Your task to perform on an android device: move a message to another label in the gmail app Image 0: 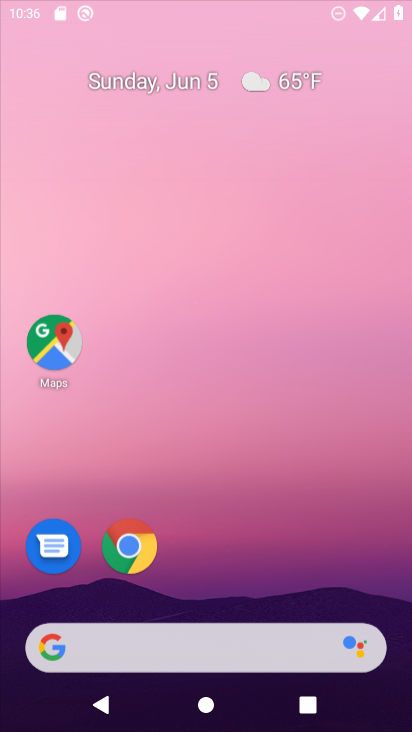
Step 0: click (248, 111)
Your task to perform on an android device: move a message to another label in the gmail app Image 1: 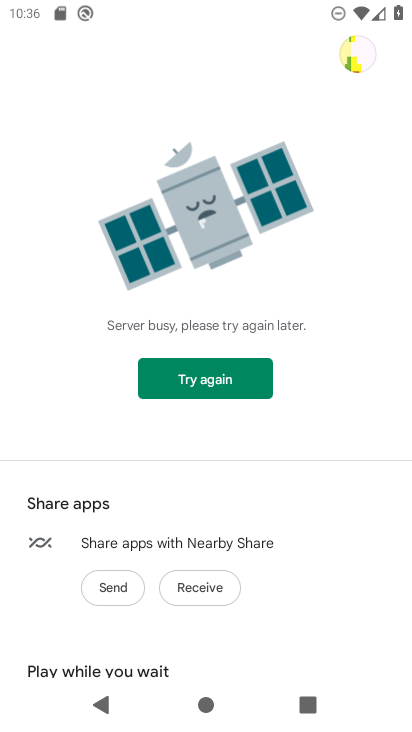
Step 1: press home button
Your task to perform on an android device: move a message to another label in the gmail app Image 2: 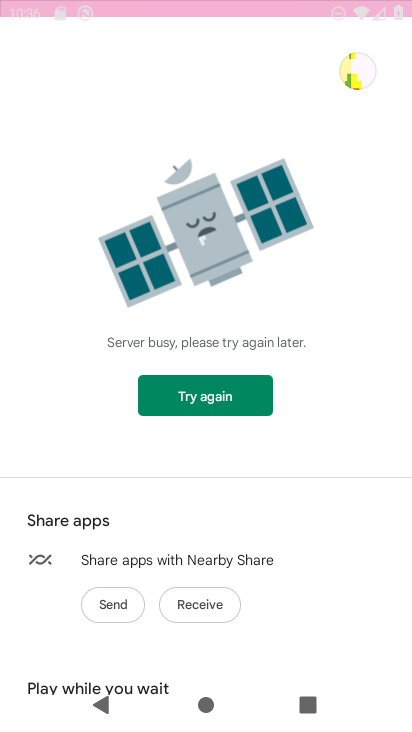
Step 2: drag from (165, 530) to (222, 20)
Your task to perform on an android device: move a message to another label in the gmail app Image 3: 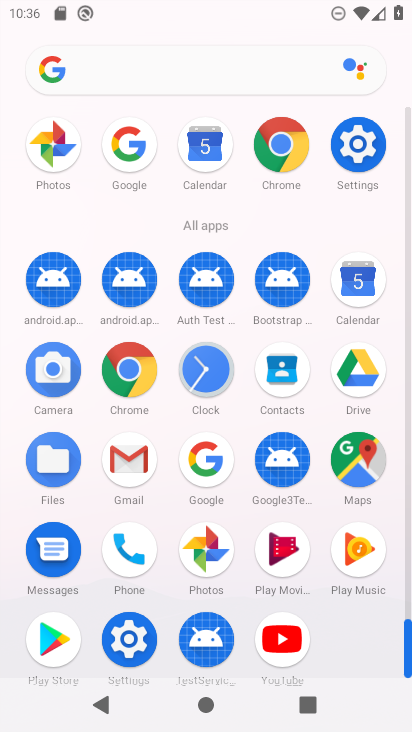
Step 3: click (135, 444)
Your task to perform on an android device: move a message to another label in the gmail app Image 4: 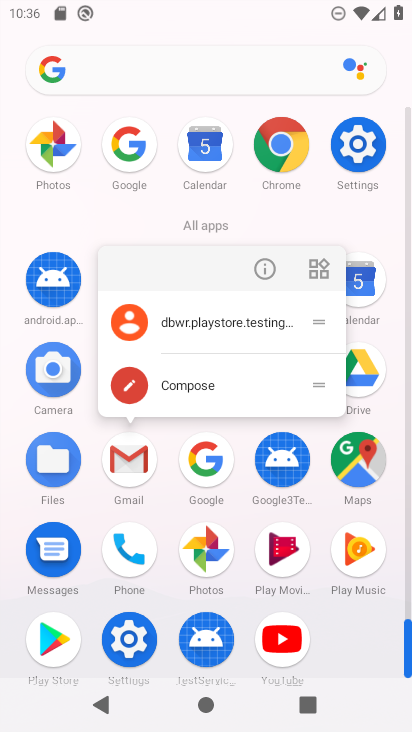
Step 4: click (254, 263)
Your task to perform on an android device: move a message to another label in the gmail app Image 5: 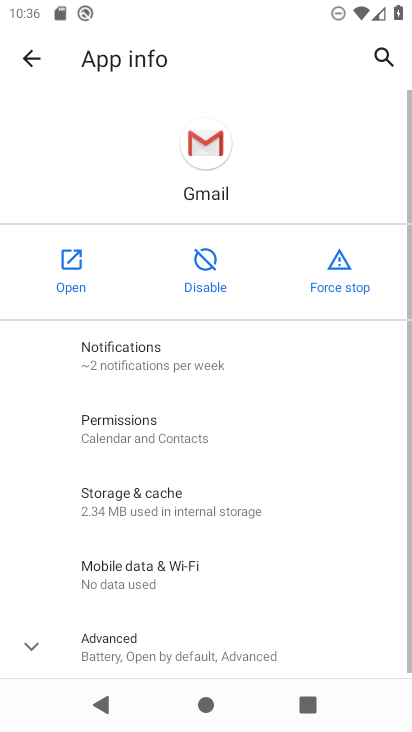
Step 5: click (69, 275)
Your task to perform on an android device: move a message to another label in the gmail app Image 6: 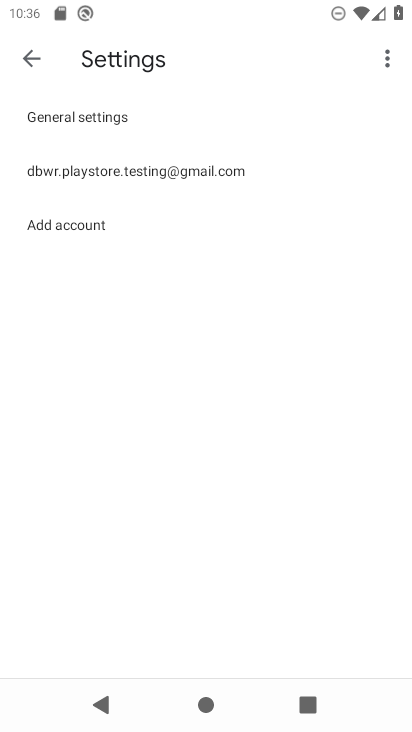
Step 6: click (208, 172)
Your task to perform on an android device: move a message to another label in the gmail app Image 7: 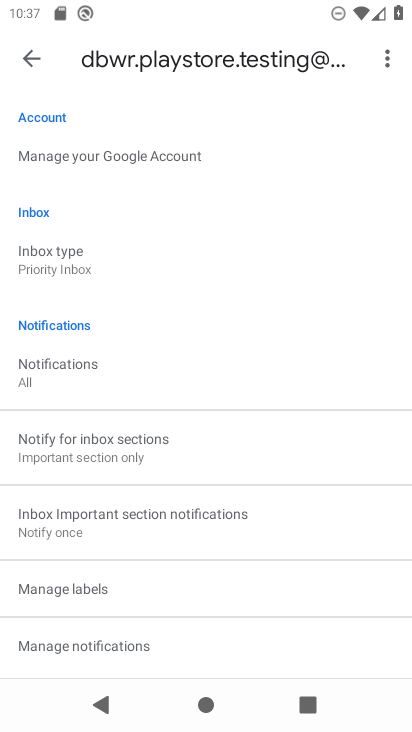
Step 7: drag from (190, 531) to (215, 201)
Your task to perform on an android device: move a message to another label in the gmail app Image 8: 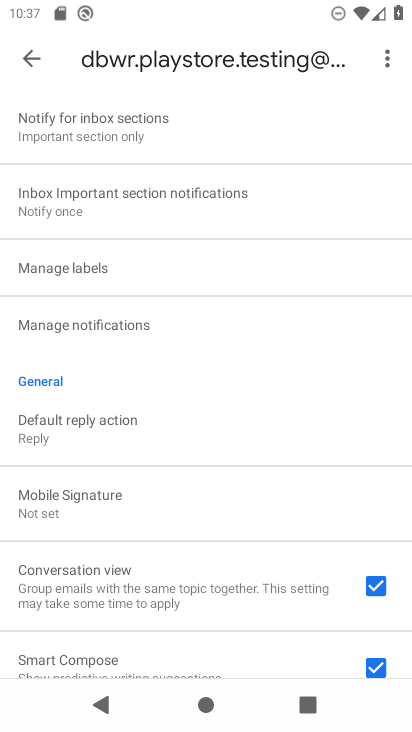
Step 8: click (34, 62)
Your task to perform on an android device: move a message to another label in the gmail app Image 9: 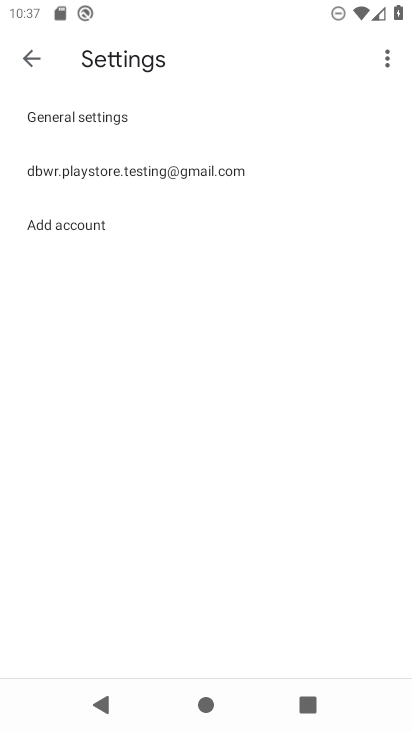
Step 9: click (27, 55)
Your task to perform on an android device: move a message to another label in the gmail app Image 10: 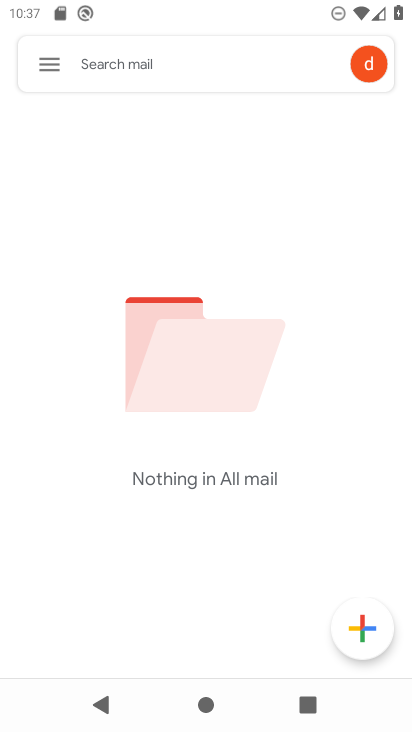
Step 10: click (52, 61)
Your task to perform on an android device: move a message to another label in the gmail app Image 11: 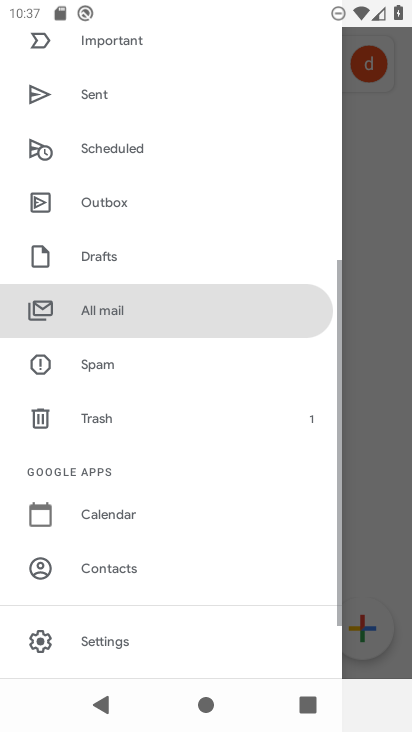
Step 11: drag from (132, 171) to (215, 721)
Your task to perform on an android device: move a message to another label in the gmail app Image 12: 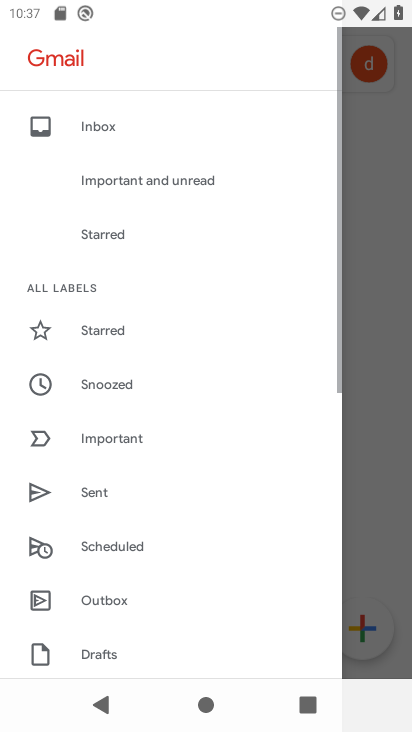
Step 12: click (93, 113)
Your task to perform on an android device: move a message to another label in the gmail app Image 13: 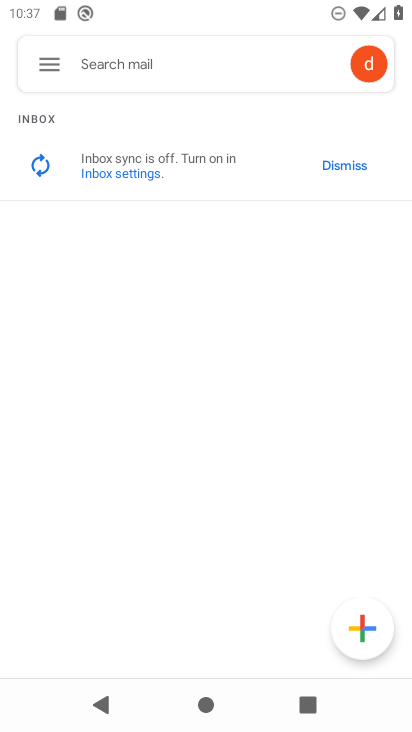
Step 13: drag from (154, 177) to (253, 534)
Your task to perform on an android device: move a message to another label in the gmail app Image 14: 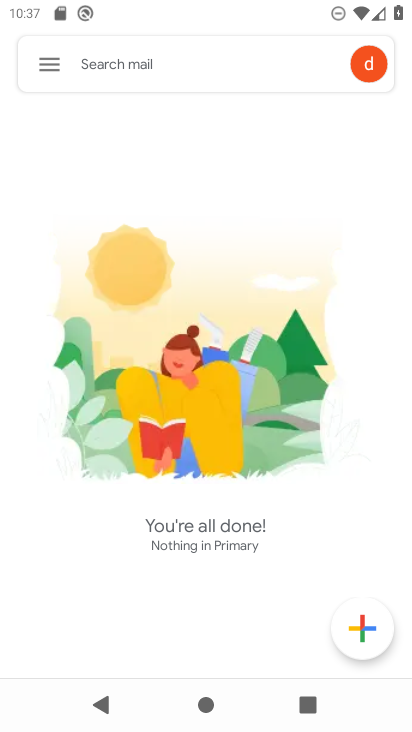
Step 14: drag from (207, 544) to (231, 274)
Your task to perform on an android device: move a message to another label in the gmail app Image 15: 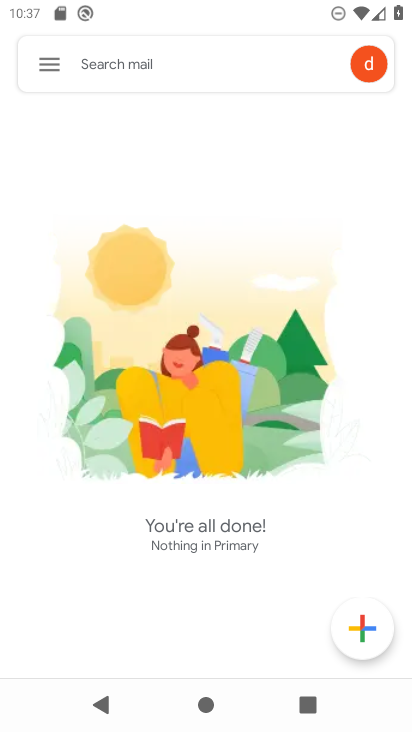
Step 15: click (36, 60)
Your task to perform on an android device: move a message to another label in the gmail app Image 16: 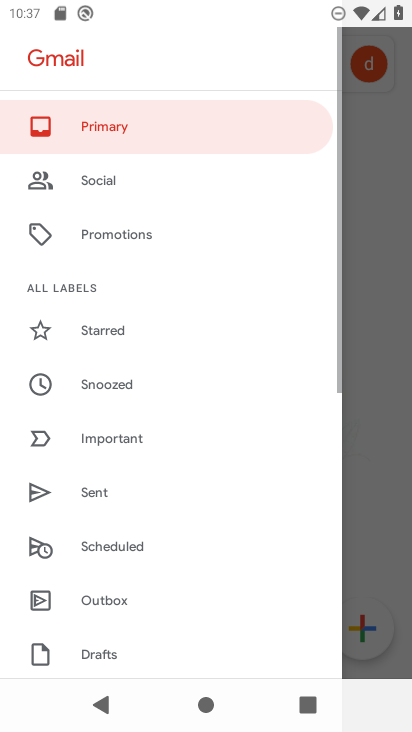
Step 16: click (140, 128)
Your task to perform on an android device: move a message to another label in the gmail app Image 17: 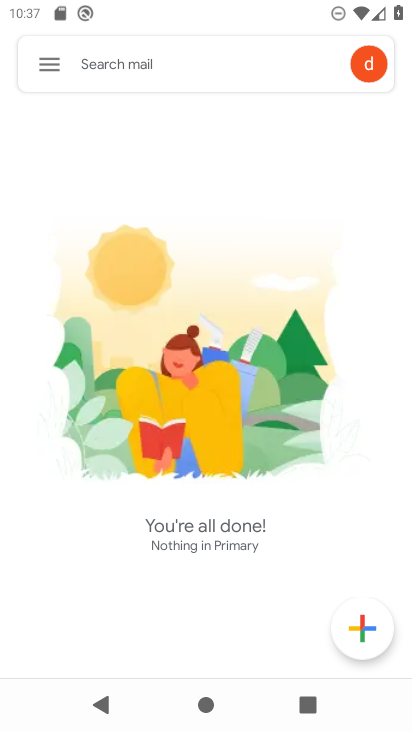
Step 17: task complete